Your task to perform on an android device: see creations saved in the google photos Image 0: 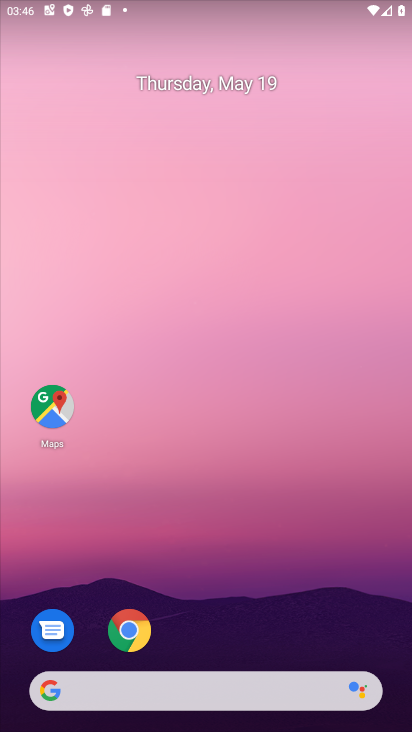
Step 0: drag from (385, 613) to (314, 81)
Your task to perform on an android device: see creations saved in the google photos Image 1: 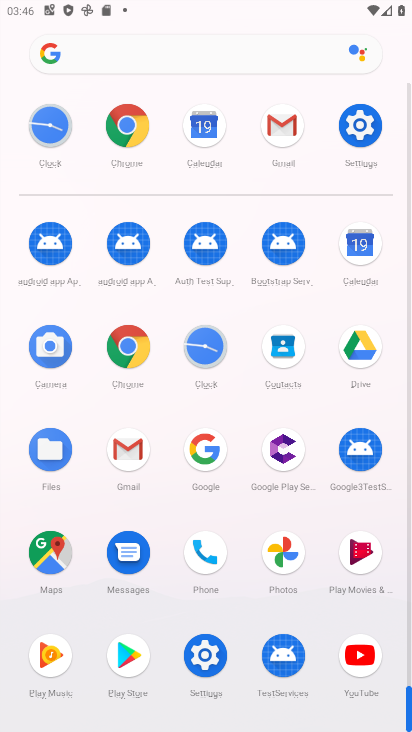
Step 1: click (280, 550)
Your task to perform on an android device: see creations saved in the google photos Image 2: 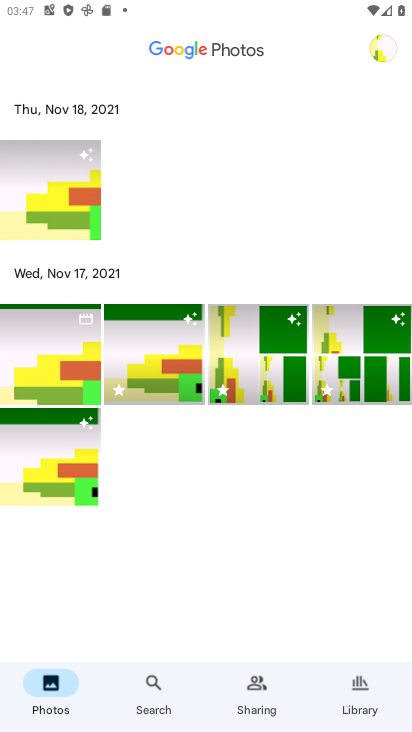
Step 2: task complete